Your task to perform on an android device: add a contact in the contacts app Image 0: 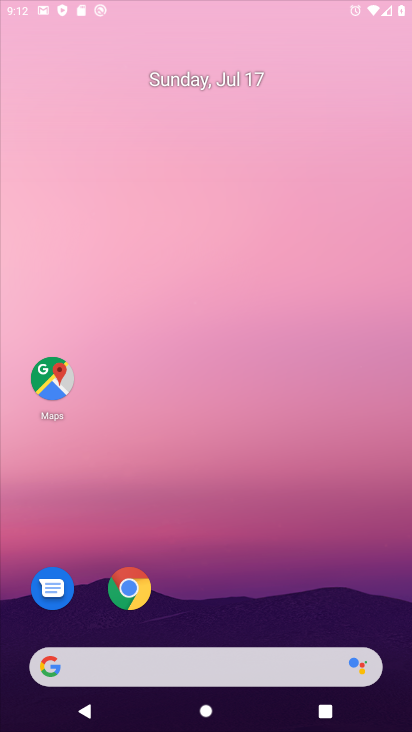
Step 0: drag from (224, 386) to (223, 70)
Your task to perform on an android device: add a contact in the contacts app Image 1: 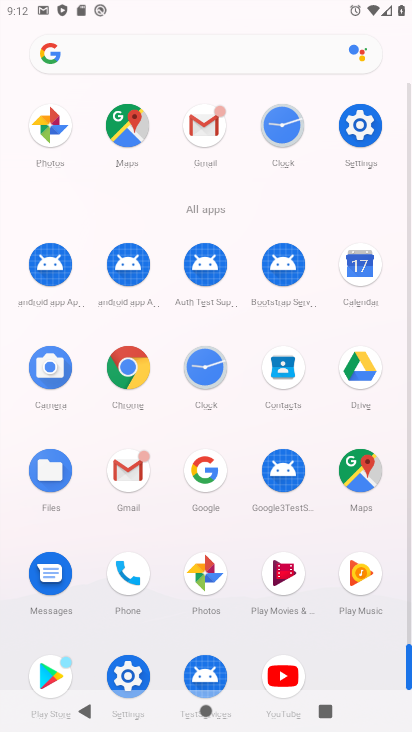
Step 1: click (279, 365)
Your task to perform on an android device: add a contact in the contacts app Image 2: 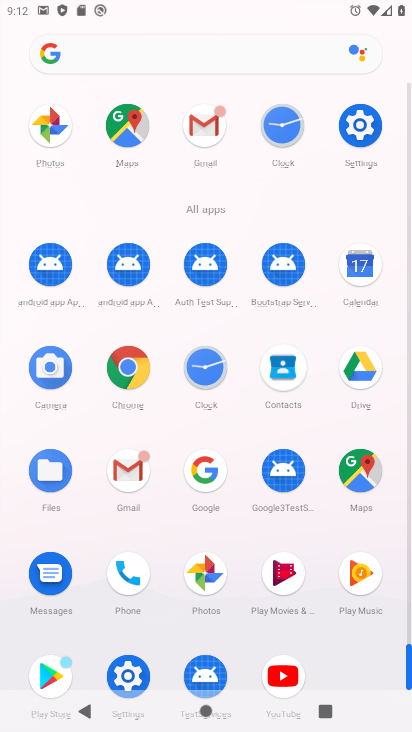
Step 2: click (281, 364)
Your task to perform on an android device: add a contact in the contacts app Image 3: 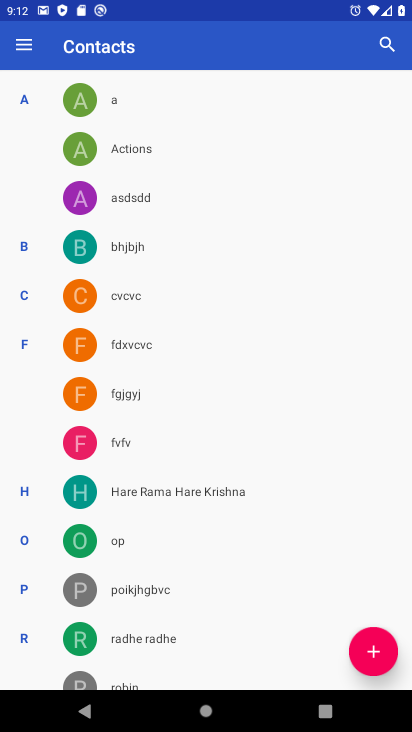
Step 3: click (371, 649)
Your task to perform on an android device: add a contact in the contacts app Image 4: 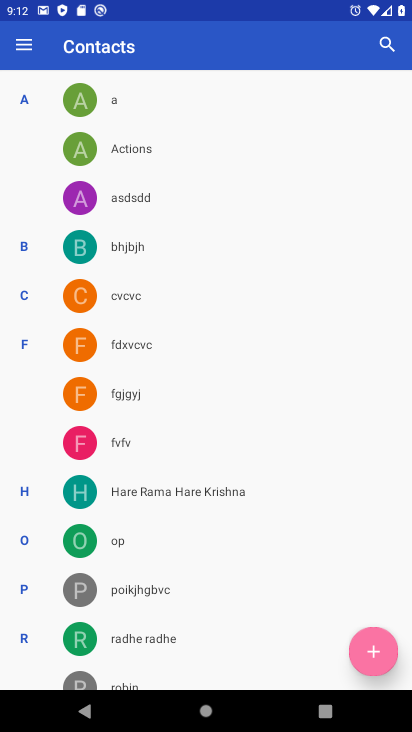
Step 4: click (375, 648)
Your task to perform on an android device: add a contact in the contacts app Image 5: 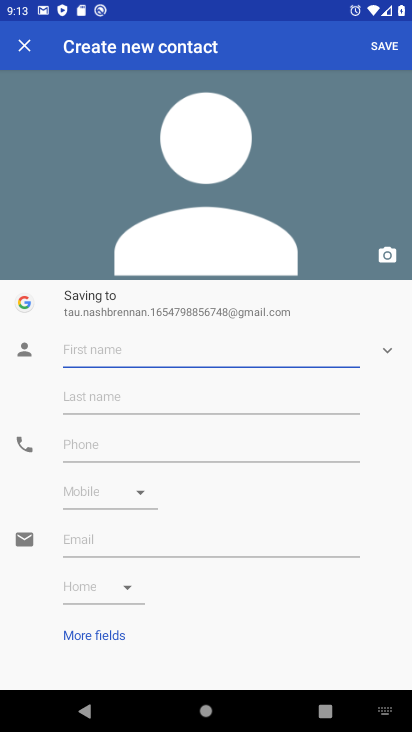
Step 5: type "mnz hmbh"
Your task to perform on an android device: add a contact in the contacts app Image 6: 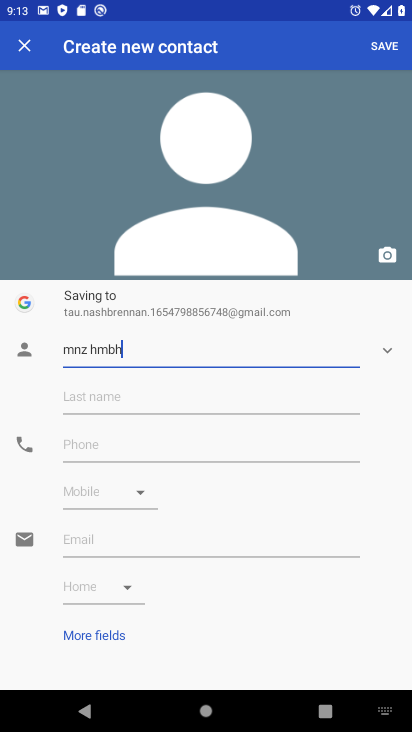
Step 6: click (81, 453)
Your task to perform on an android device: add a contact in the contacts app Image 7: 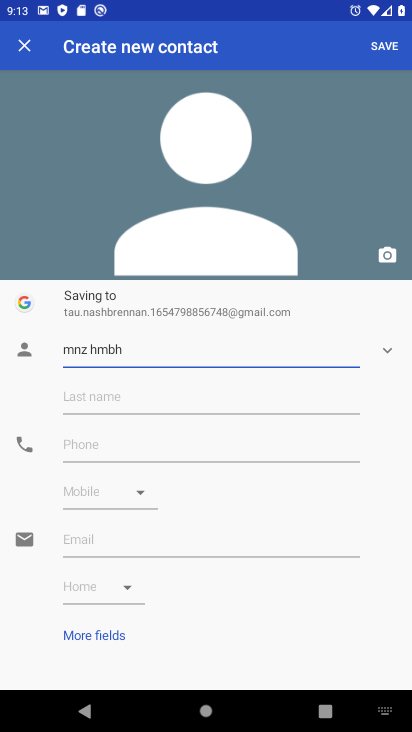
Step 7: click (81, 453)
Your task to perform on an android device: add a contact in the contacts app Image 8: 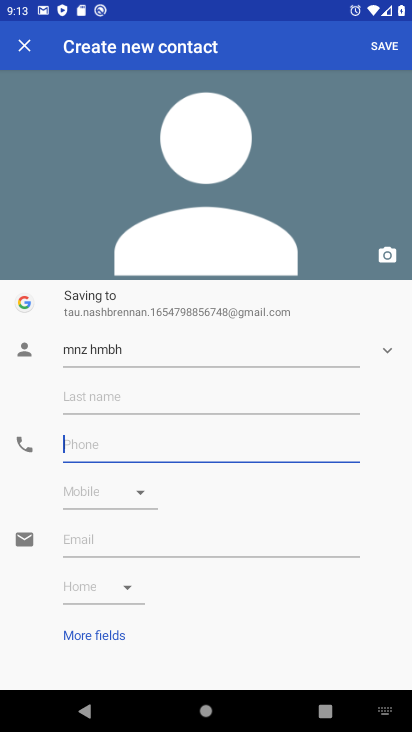
Step 8: click (81, 453)
Your task to perform on an android device: add a contact in the contacts app Image 9: 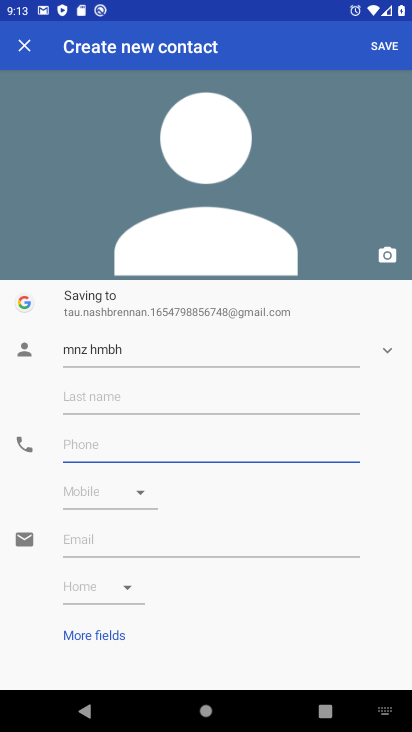
Step 9: type "87778732983893"
Your task to perform on an android device: add a contact in the contacts app Image 10: 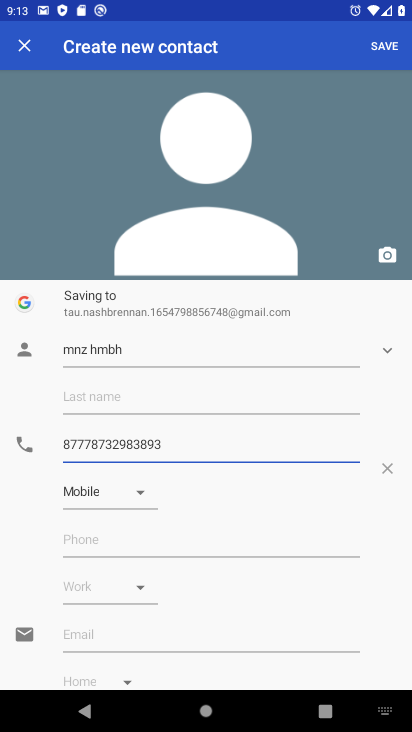
Step 10: click (378, 44)
Your task to perform on an android device: add a contact in the contacts app Image 11: 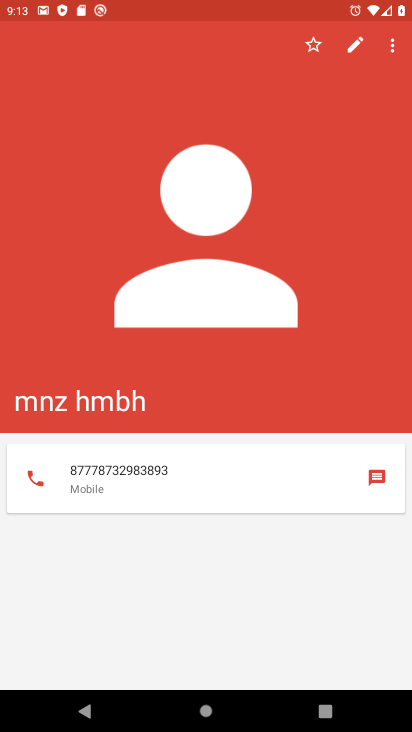
Step 11: task complete